Your task to perform on an android device: Open Google Image 0: 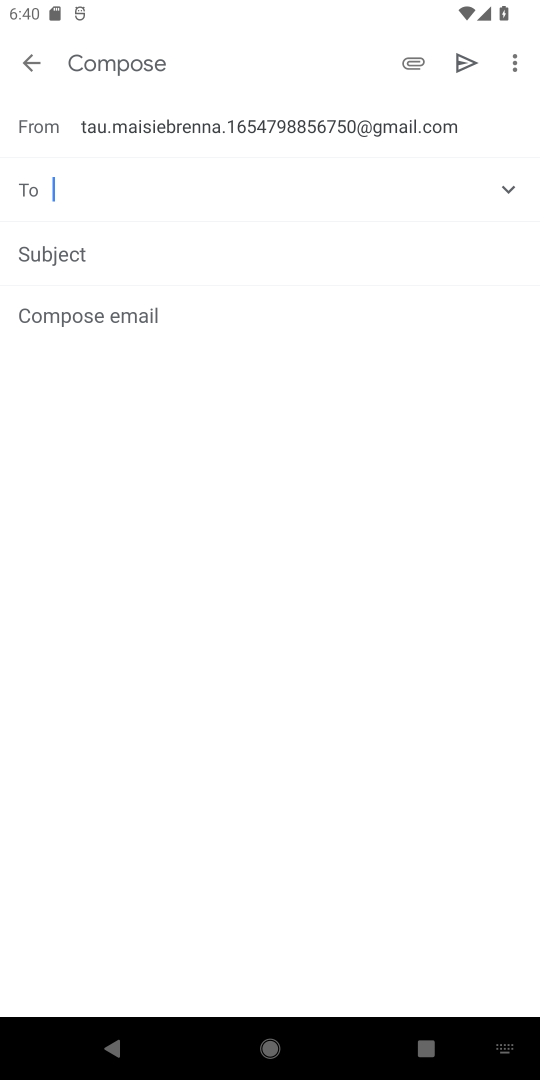
Step 0: click (20, 75)
Your task to perform on an android device: Open Google Image 1: 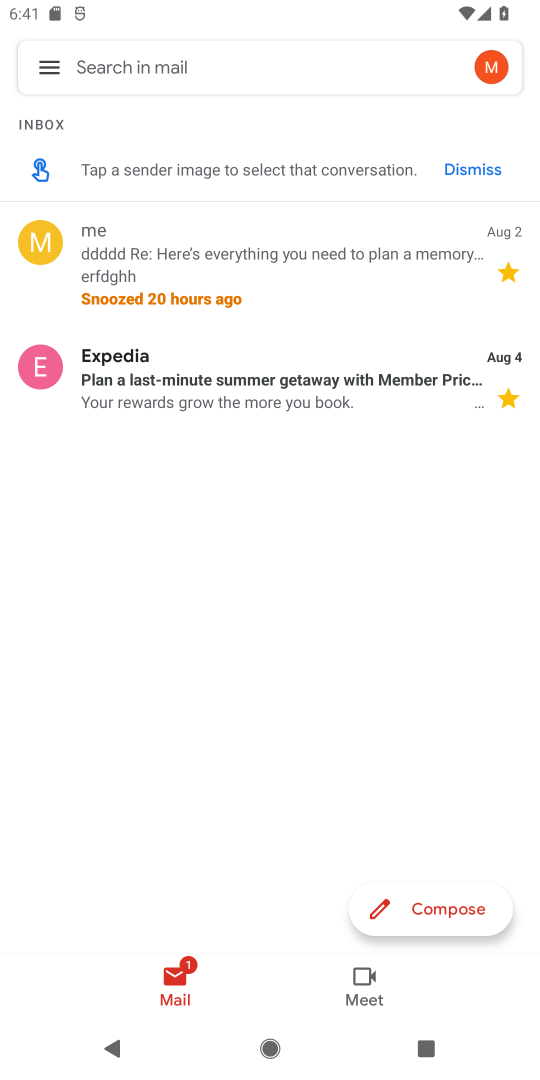
Step 1: press back button
Your task to perform on an android device: Open Google Image 2: 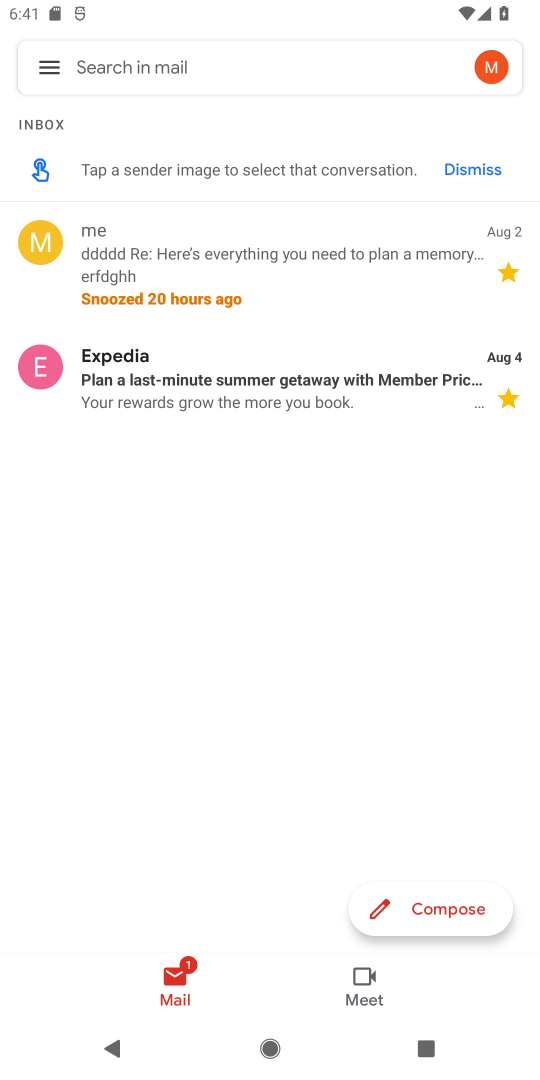
Step 2: press back button
Your task to perform on an android device: Open Google Image 3: 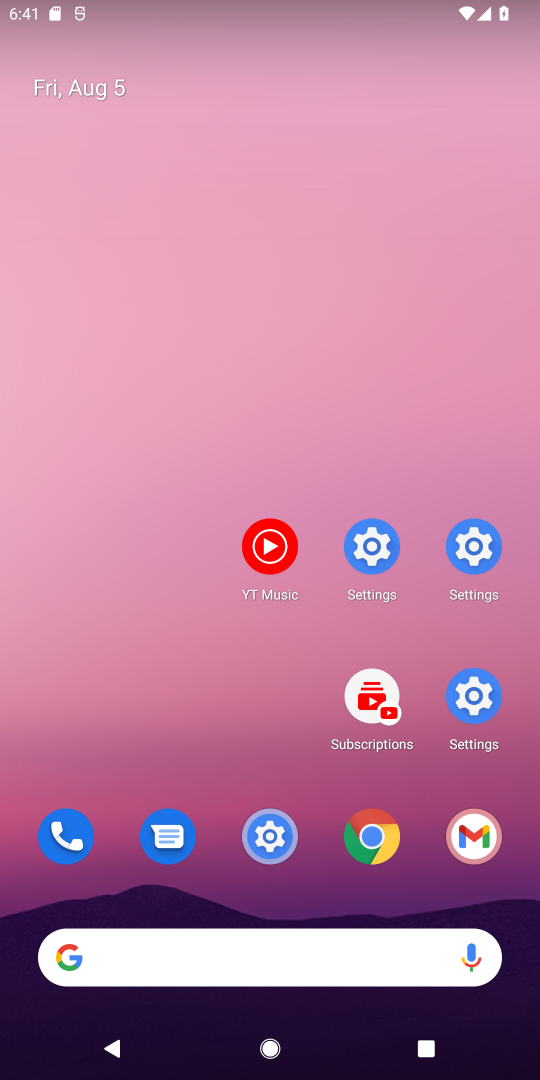
Step 3: press back button
Your task to perform on an android device: Open Google Image 4: 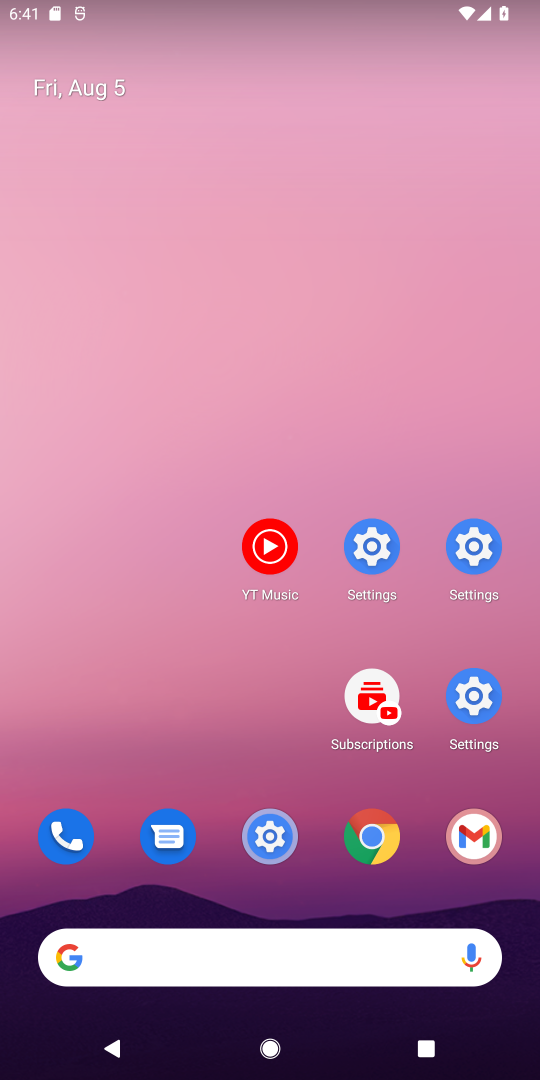
Step 4: press back button
Your task to perform on an android device: Open Google Image 5: 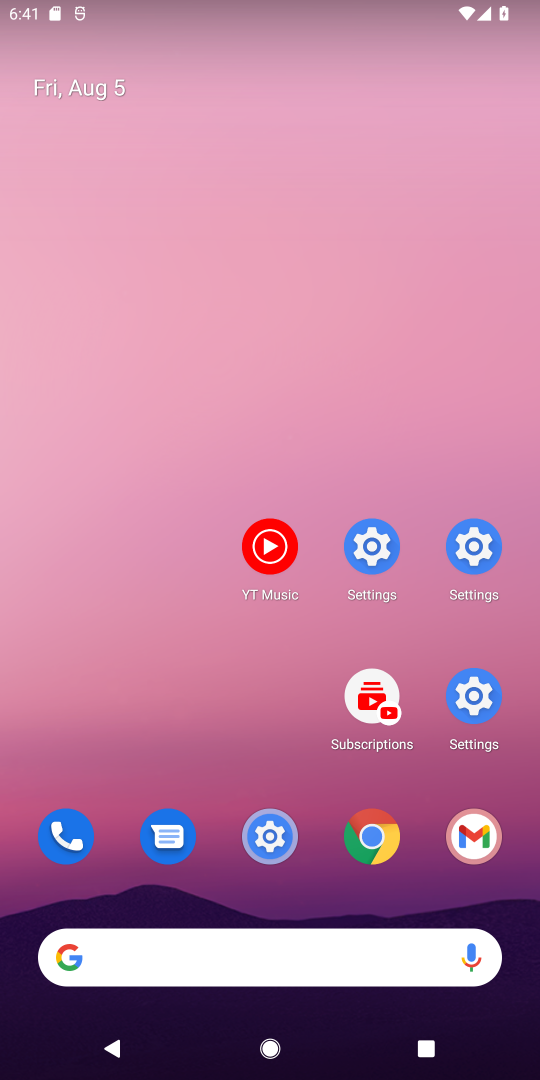
Step 5: press back button
Your task to perform on an android device: Open Google Image 6: 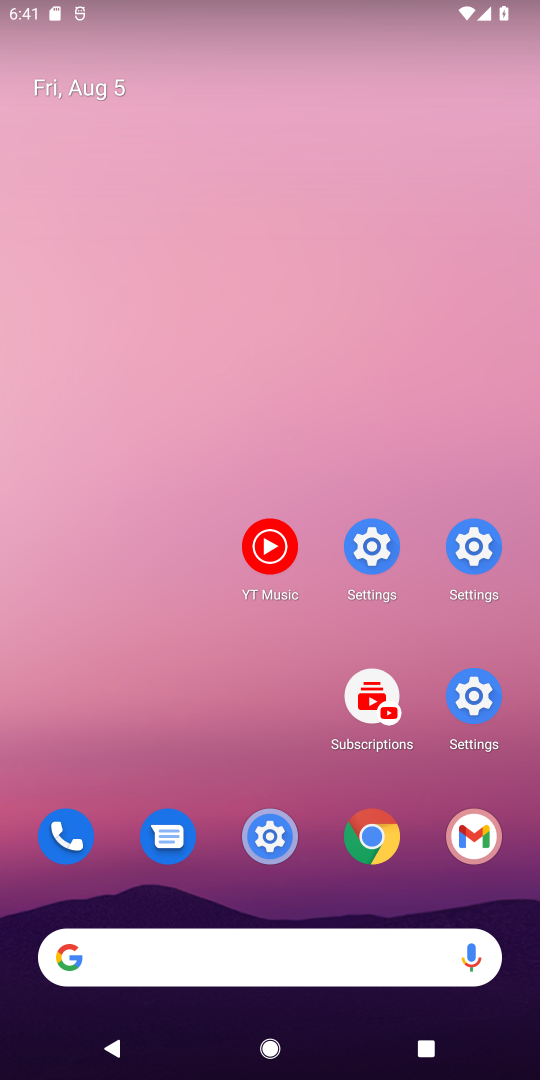
Step 6: drag from (322, 982) to (180, 234)
Your task to perform on an android device: Open Google Image 7: 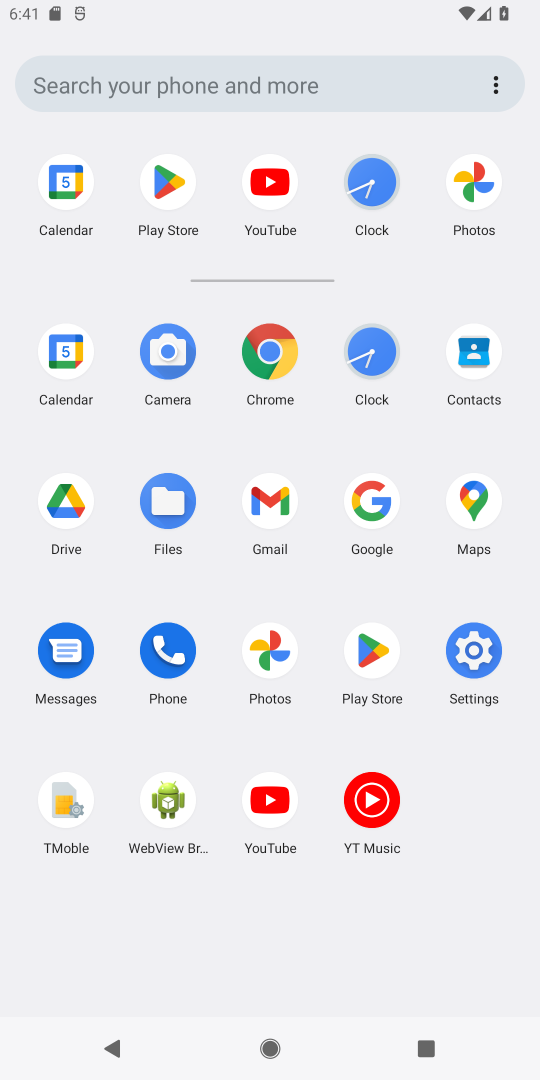
Step 7: click (371, 515)
Your task to perform on an android device: Open Google Image 8: 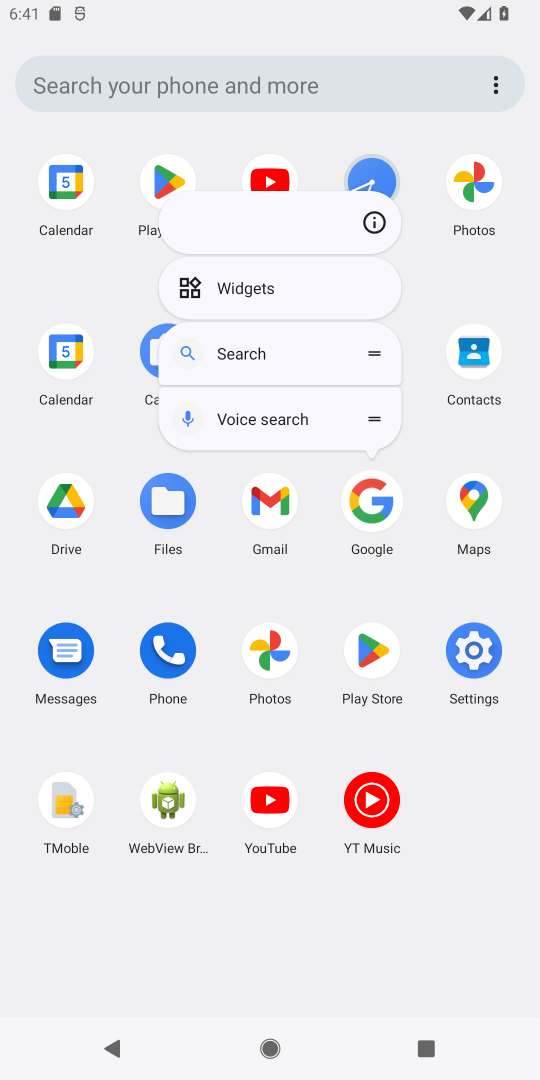
Step 8: click (371, 515)
Your task to perform on an android device: Open Google Image 9: 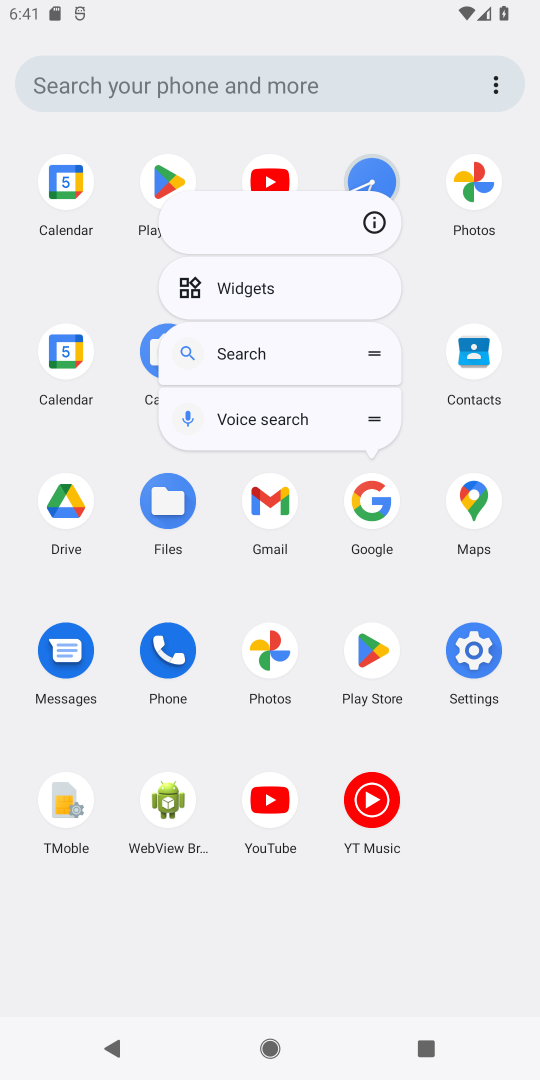
Step 9: click (371, 513)
Your task to perform on an android device: Open Google Image 10: 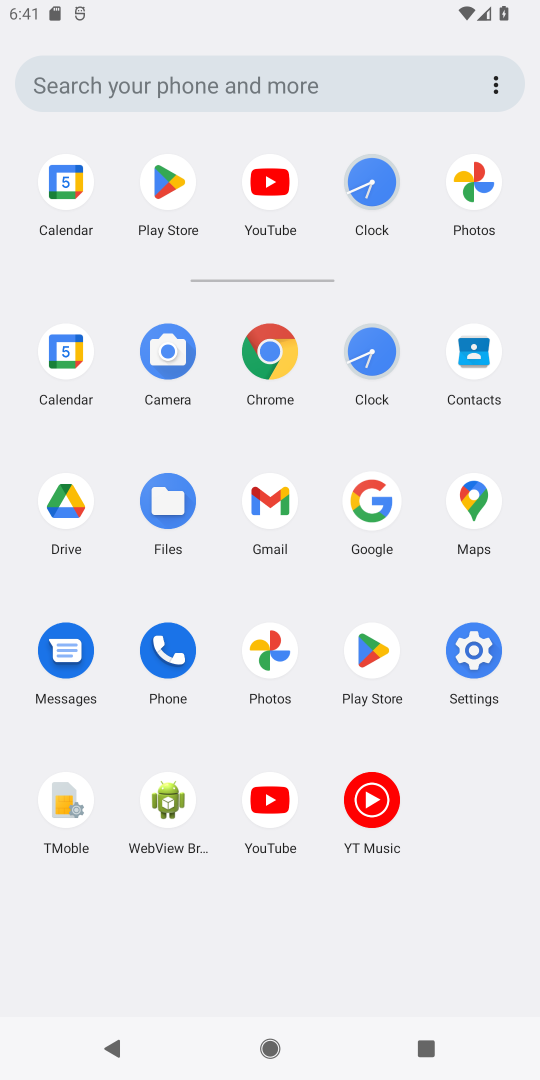
Step 10: click (371, 513)
Your task to perform on an android device: Open Google Image 11: 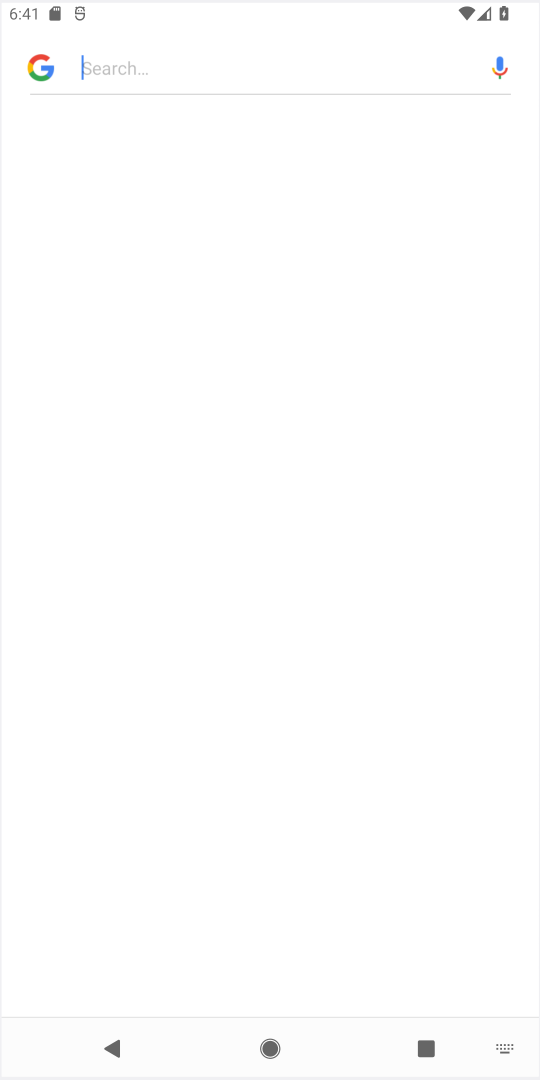
Step 11: click (371, 513)
Your task to perform on an android device: Open Google Image 12: 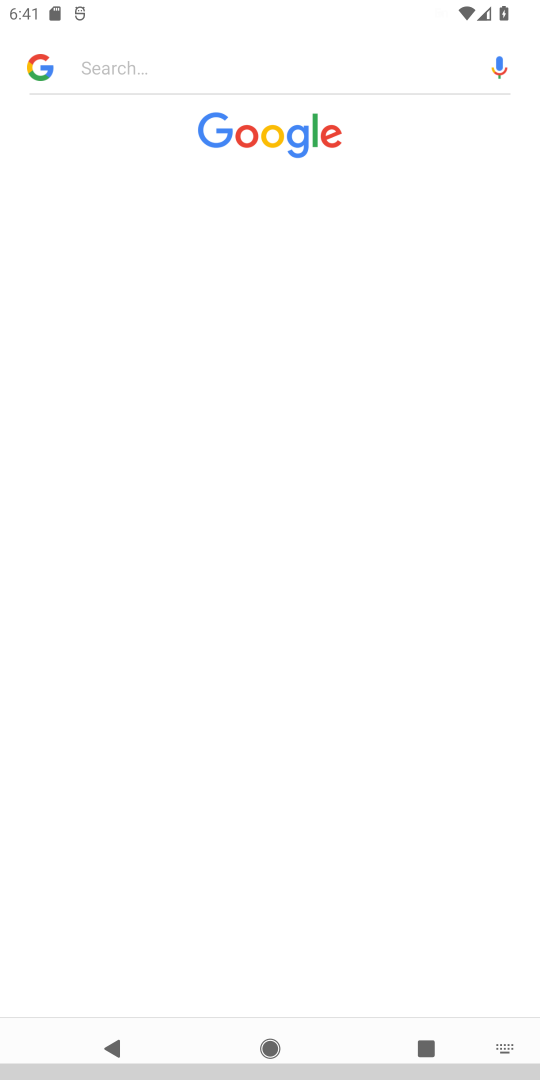
Step 12: click (371, 513)
Your task to perform on an android device: Open Google Image 13: 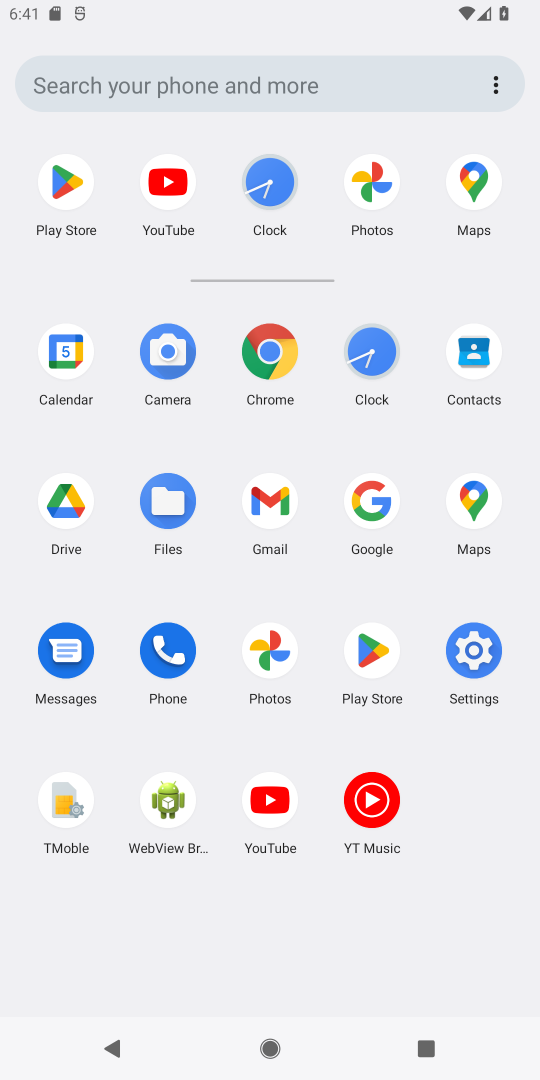
Step 13: click (371, 520)
Your task to perform on an android device: Open Google Image 14: 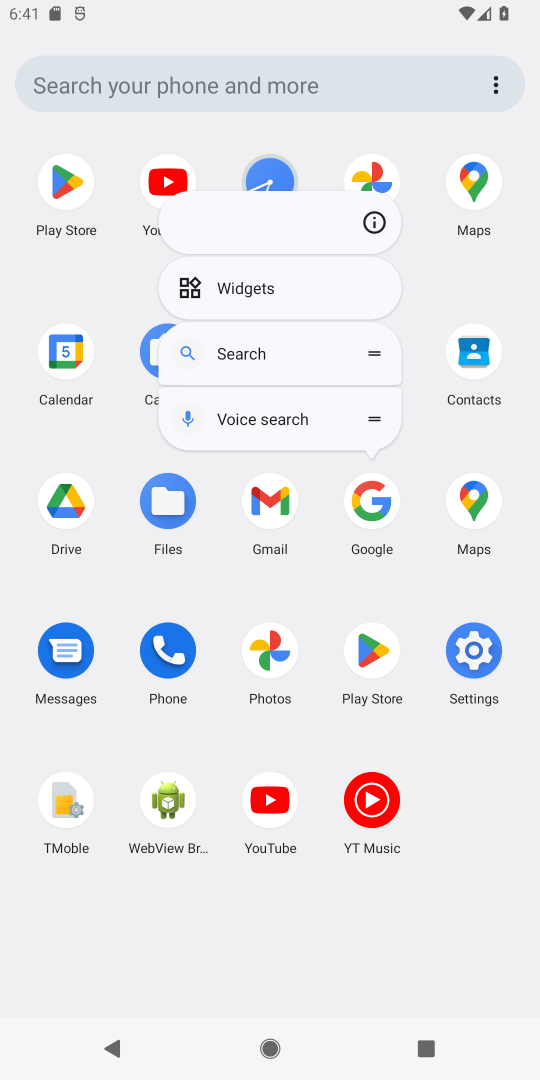
Step 14: click (371, 520)
Your task to perform on an android device: Open Google Image 15: 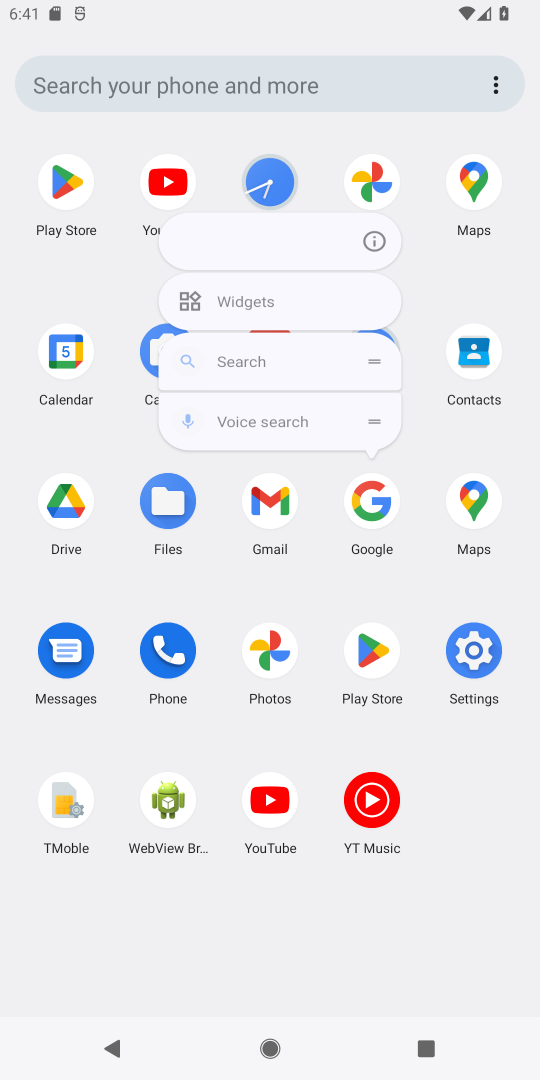
Step 15: click (389, 509)
Your task to perform on an android device: Open Google Image 16: 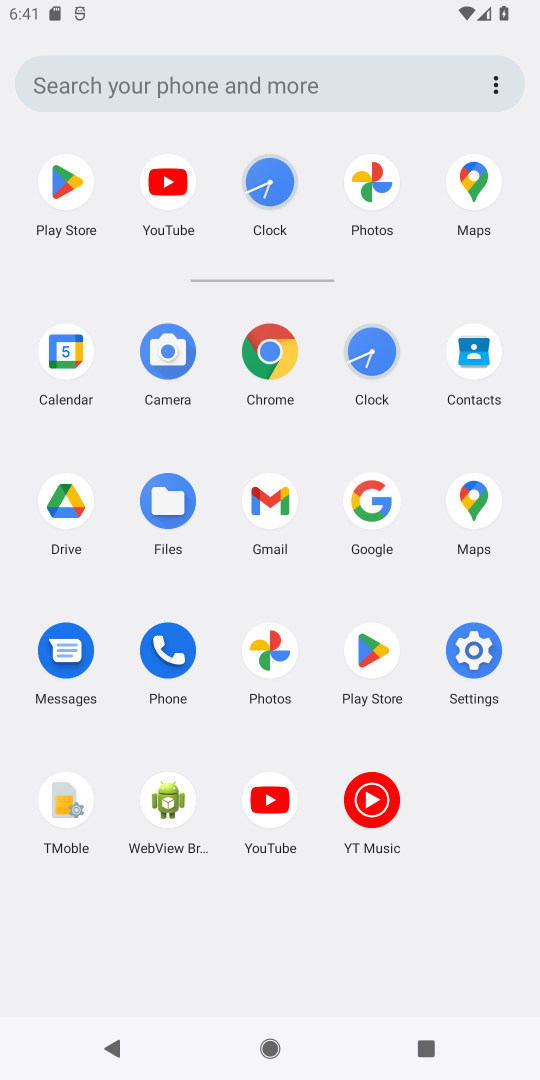
Step 16: click (389, 509)
Your task to perform on an android device: Open Google Image 17: 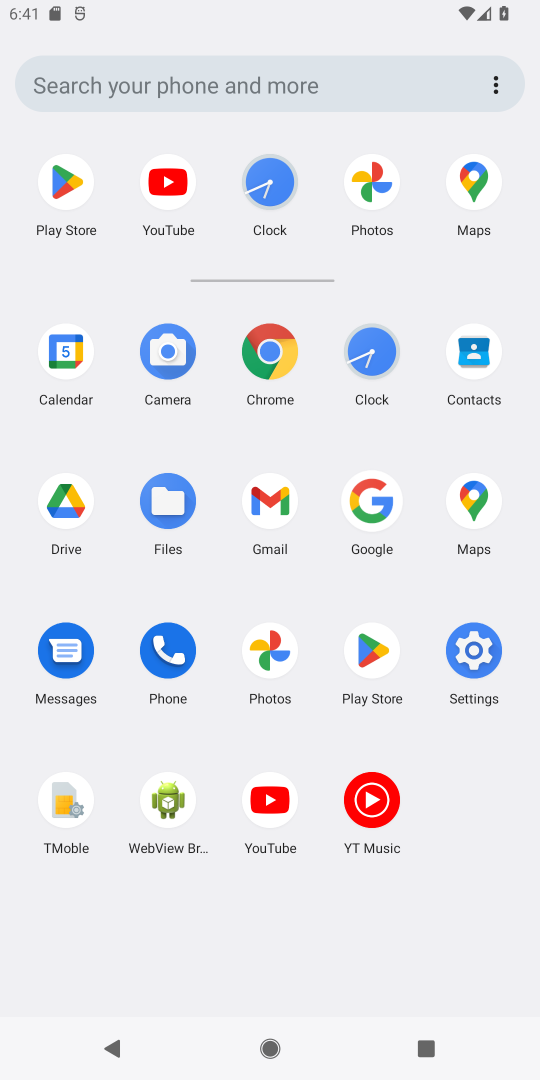
Step 17: click (392, 511)
Your task to perform on an android device: Open Google Image 18: 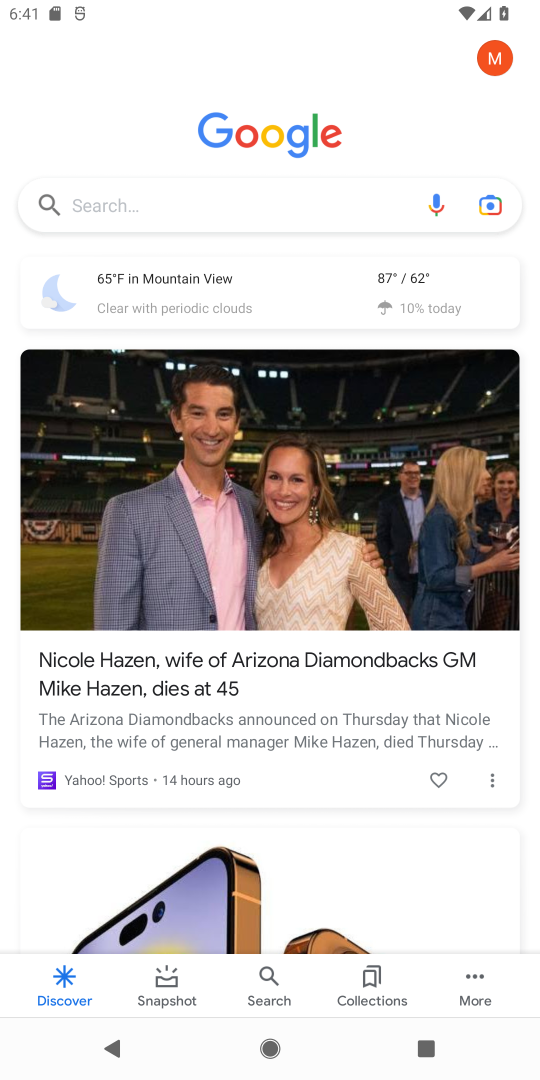
Step 18: task complete